Your task to perform on an android device: Go to privacy settings Image 0: 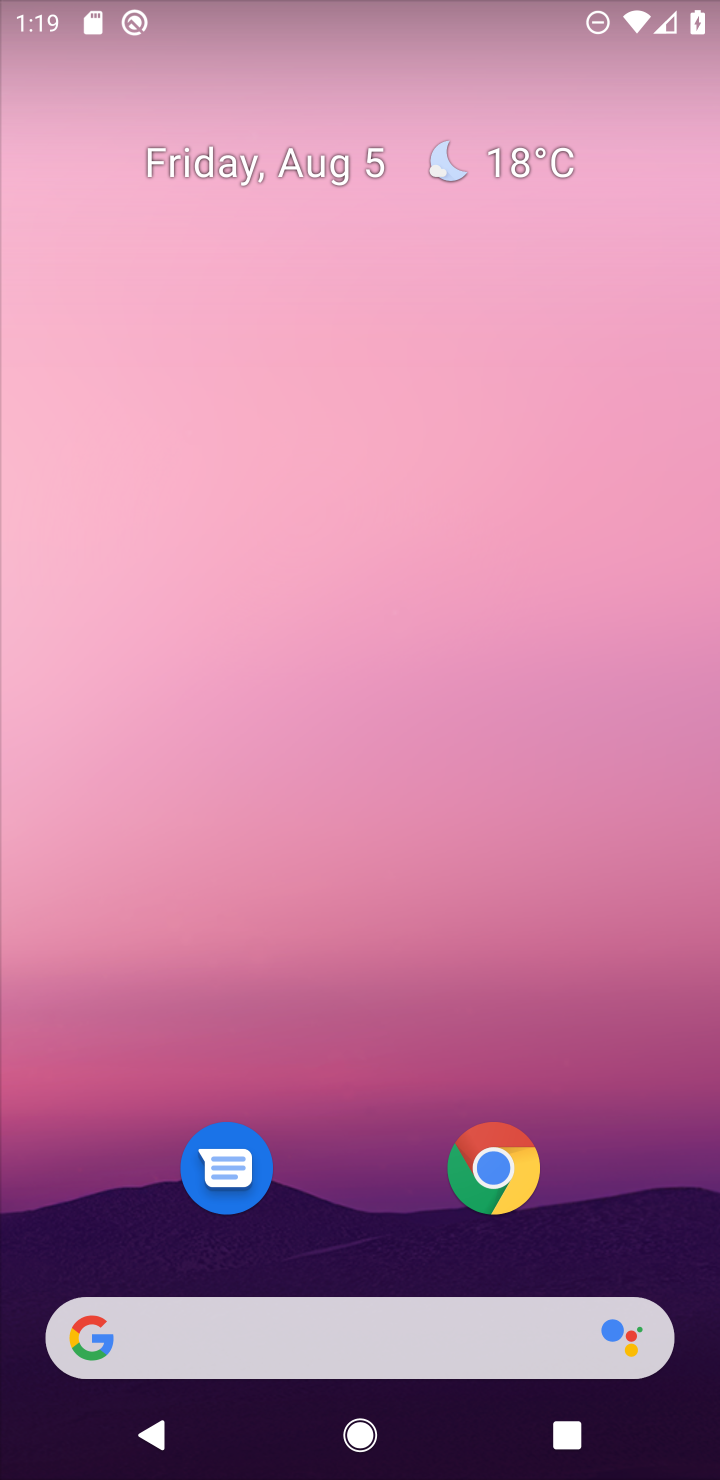
Step 0: drag from (388, 1090) to (505, 187)
Your task to perform on an android device: Go to privacy settings Image 1: 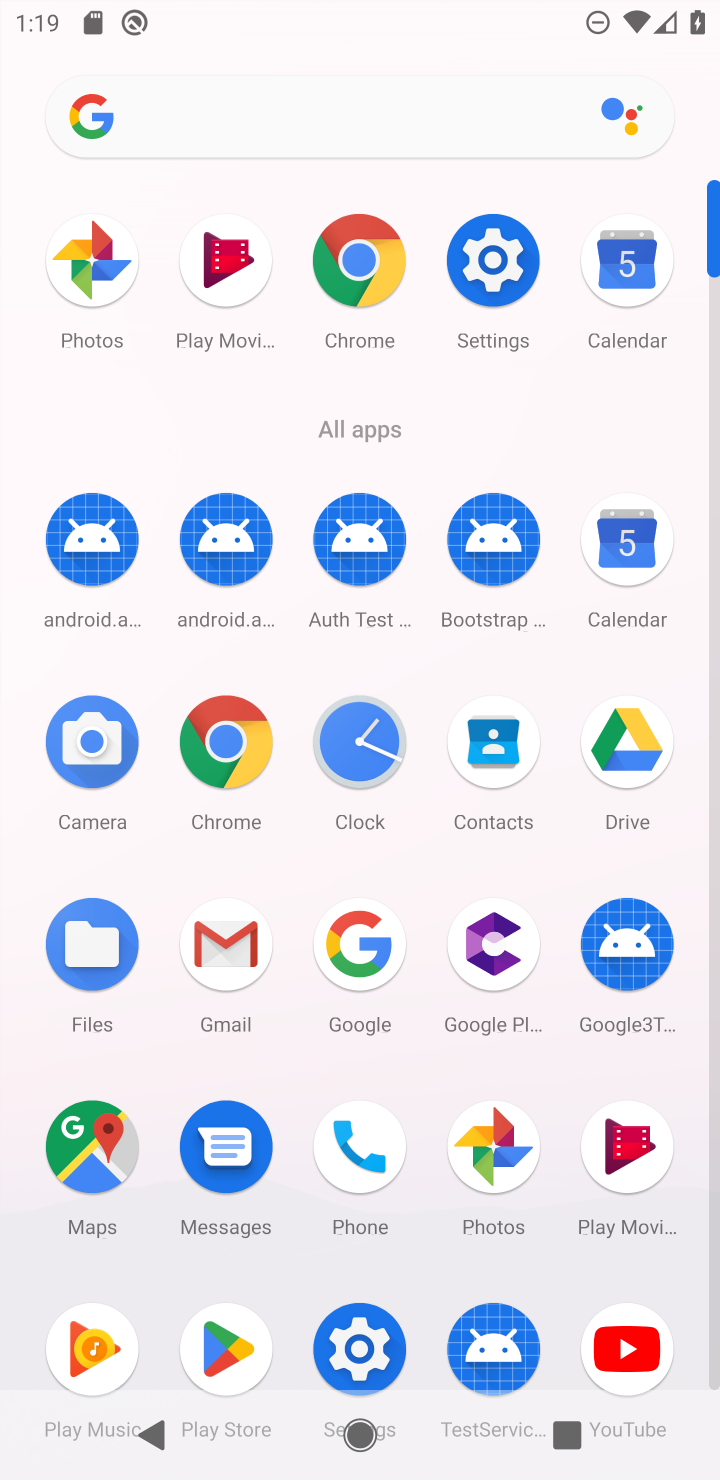
Step 1: click (361, 247)
Your task to perform on an android device: Go to privacy settings Image 2: 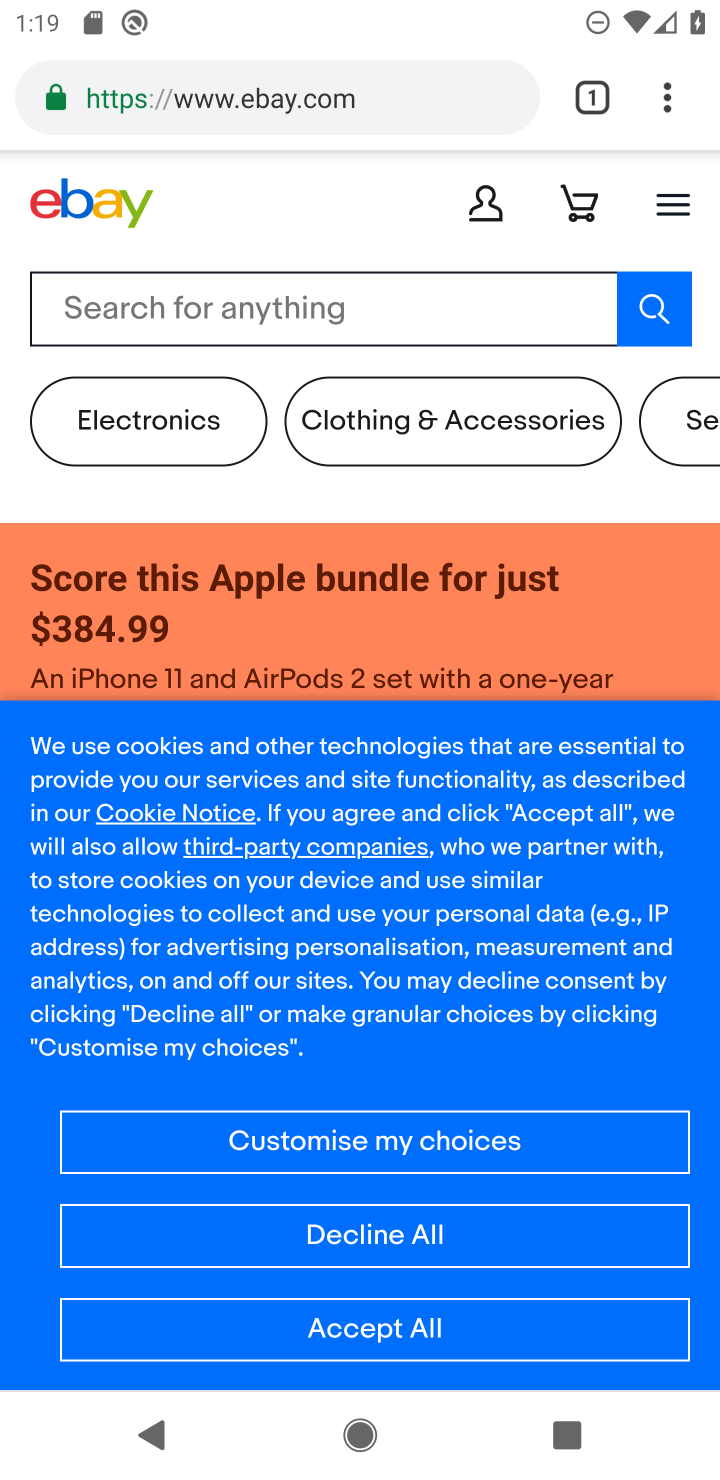
Step 2: press back button
Your task to perform on an android device: Go to privacy settings Image 3: 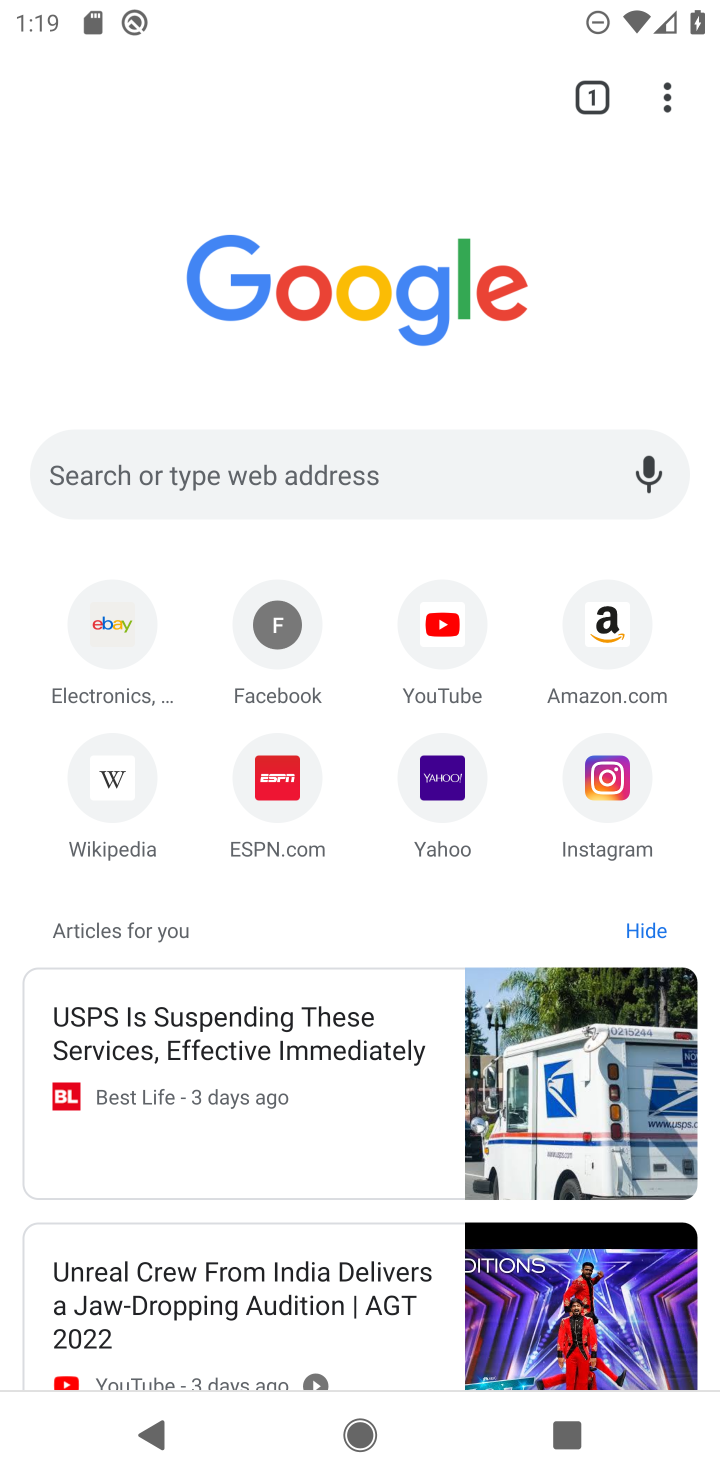
Step 3: press back button
Your task to perform on an android device: Go to privacy settings Image 4: 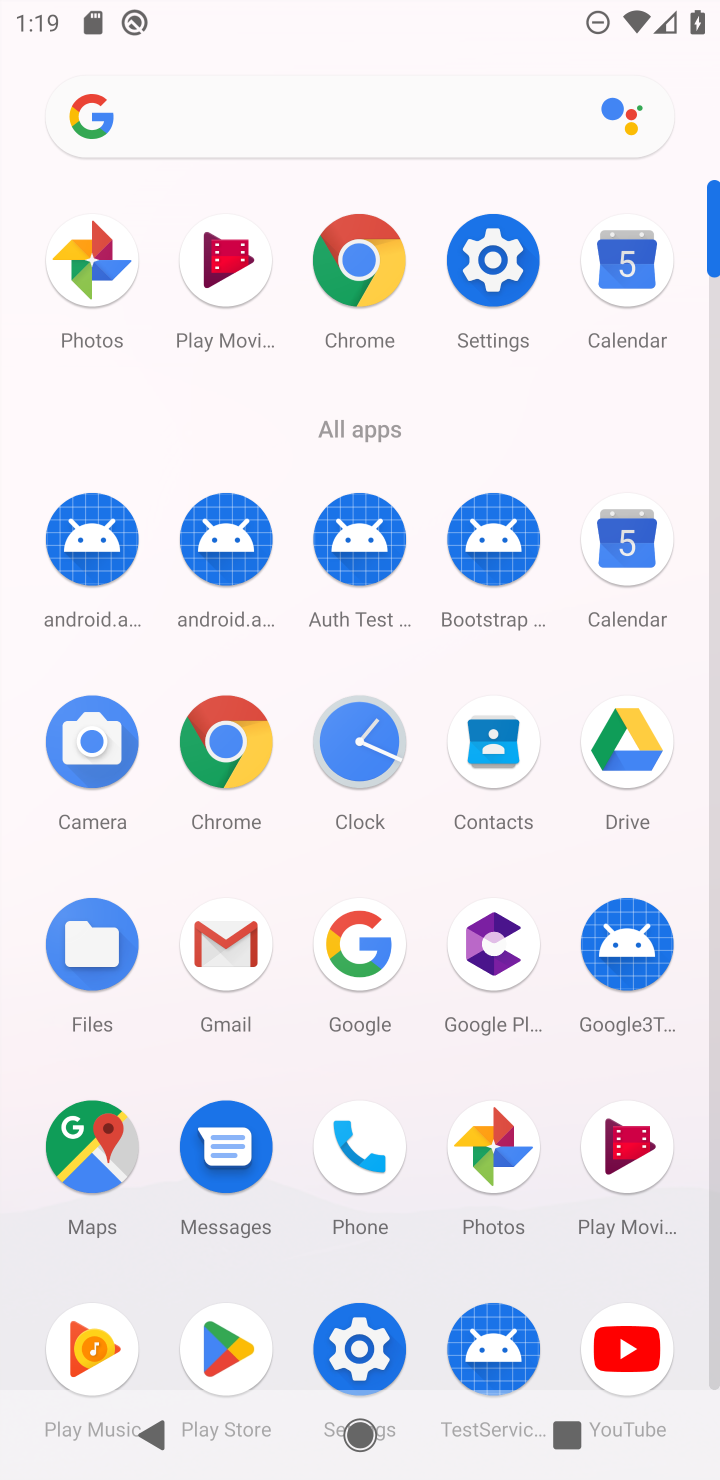
Step 4: click (474, 262)
Your task to perform on an android device: Go to privacy settings Image 5: 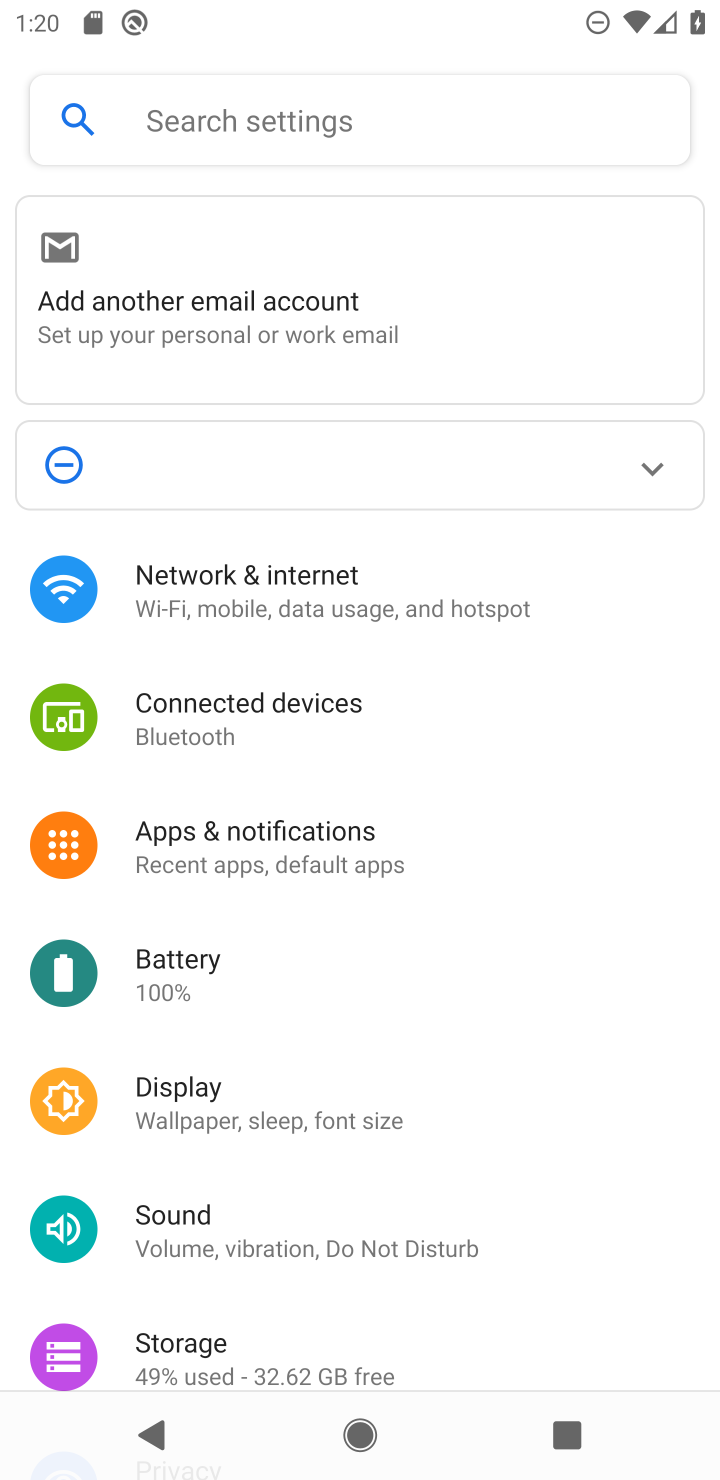
Step 5: drag from (226, 1248) to (354, 655)
Your task to perform on an android device: Go to privacy settings Image 6: 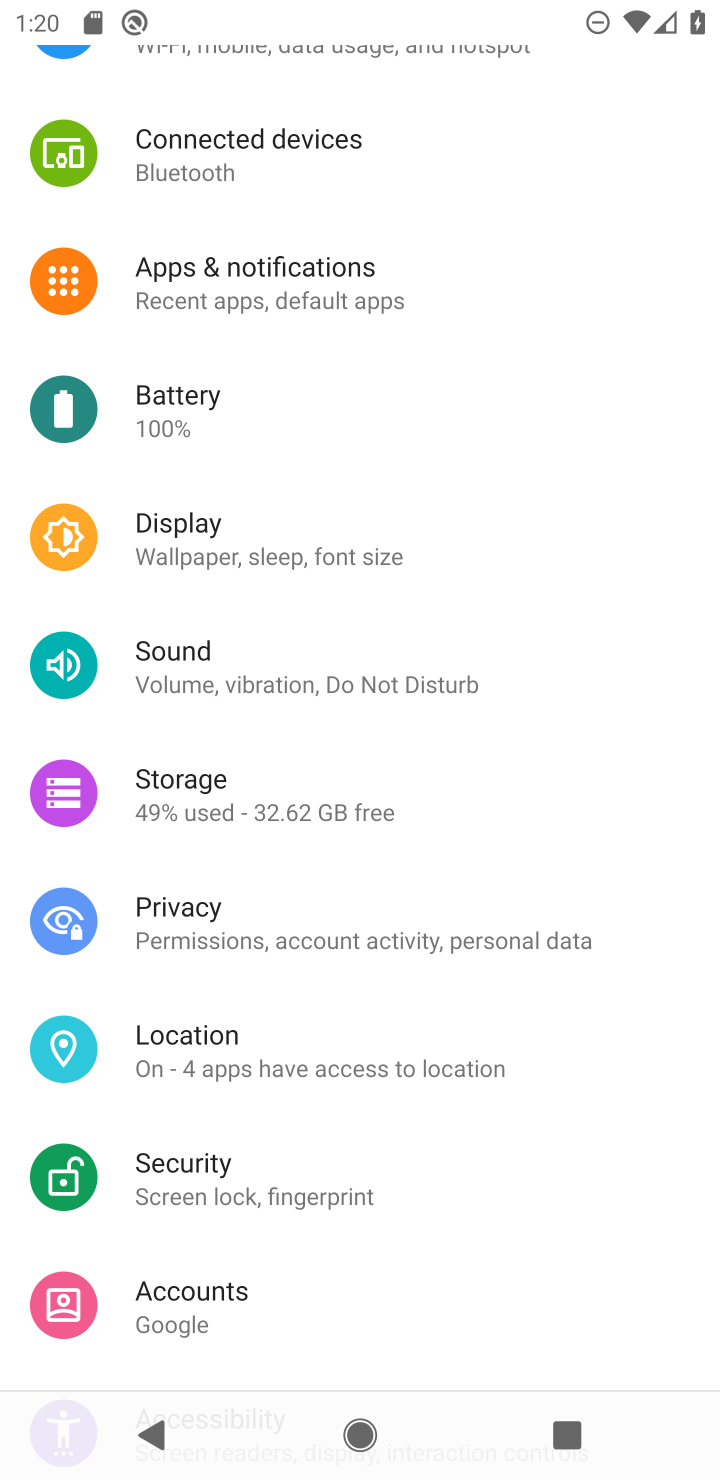
Step 6: click (233, 919)
Your task to perform on an android device: Go to privacy settings Image 7: 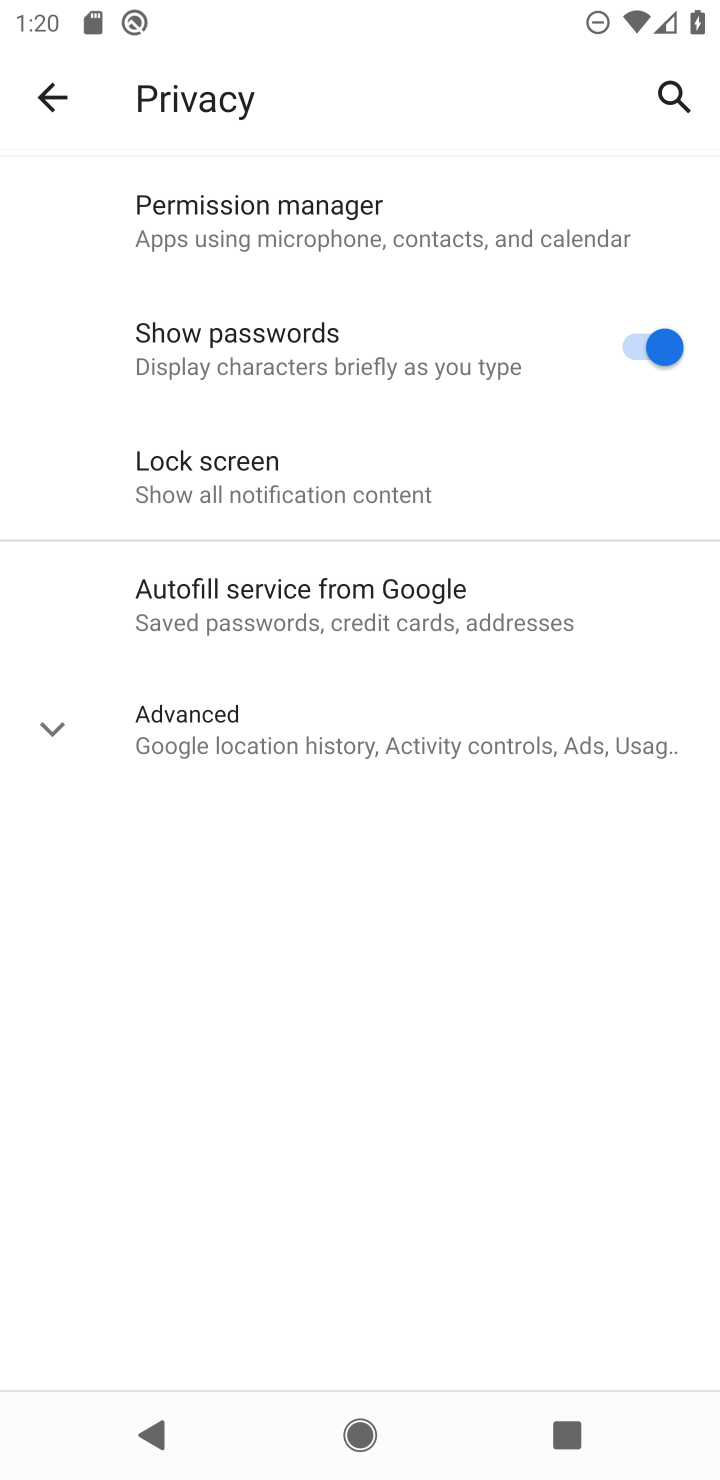
Step 7: task complete